Your task to perform on an android device: Open settings Image 0: 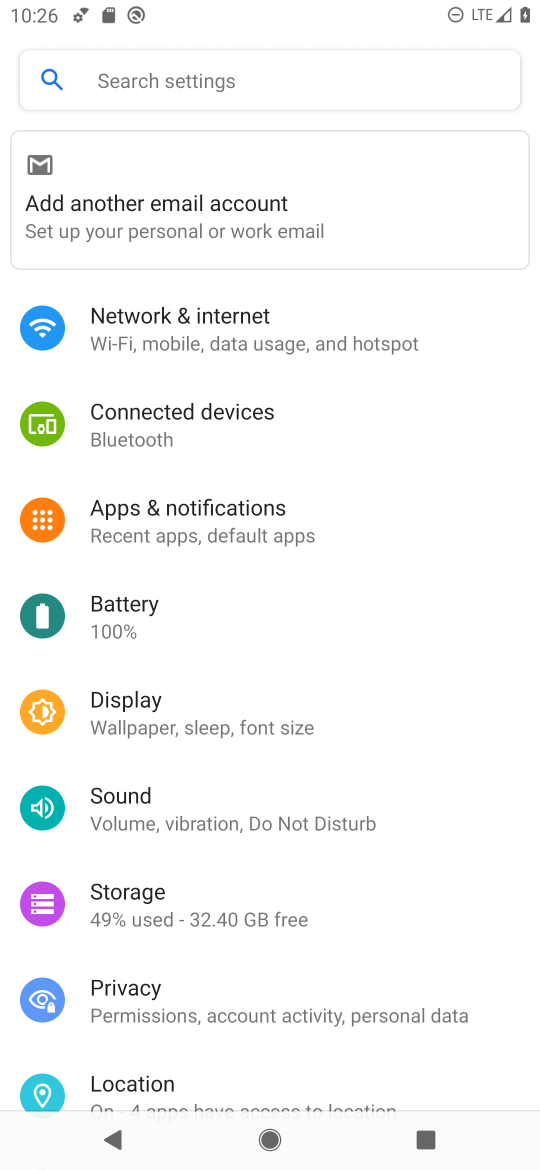
Step 0: drag from (271, 861) to (285, 258)
Your task to perform on an android device: Open settings Image 1: 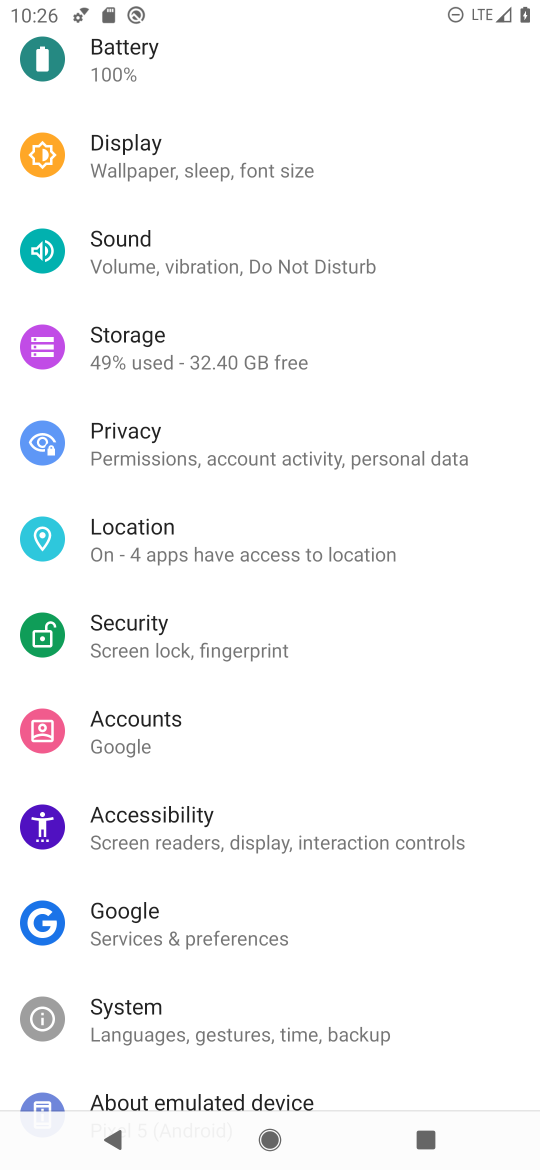
Step 1: task complete